Your task to perform on an android device: Clear the cart on bestbuy. Add rayovac triple a to the cart on bestbuy Image 0: 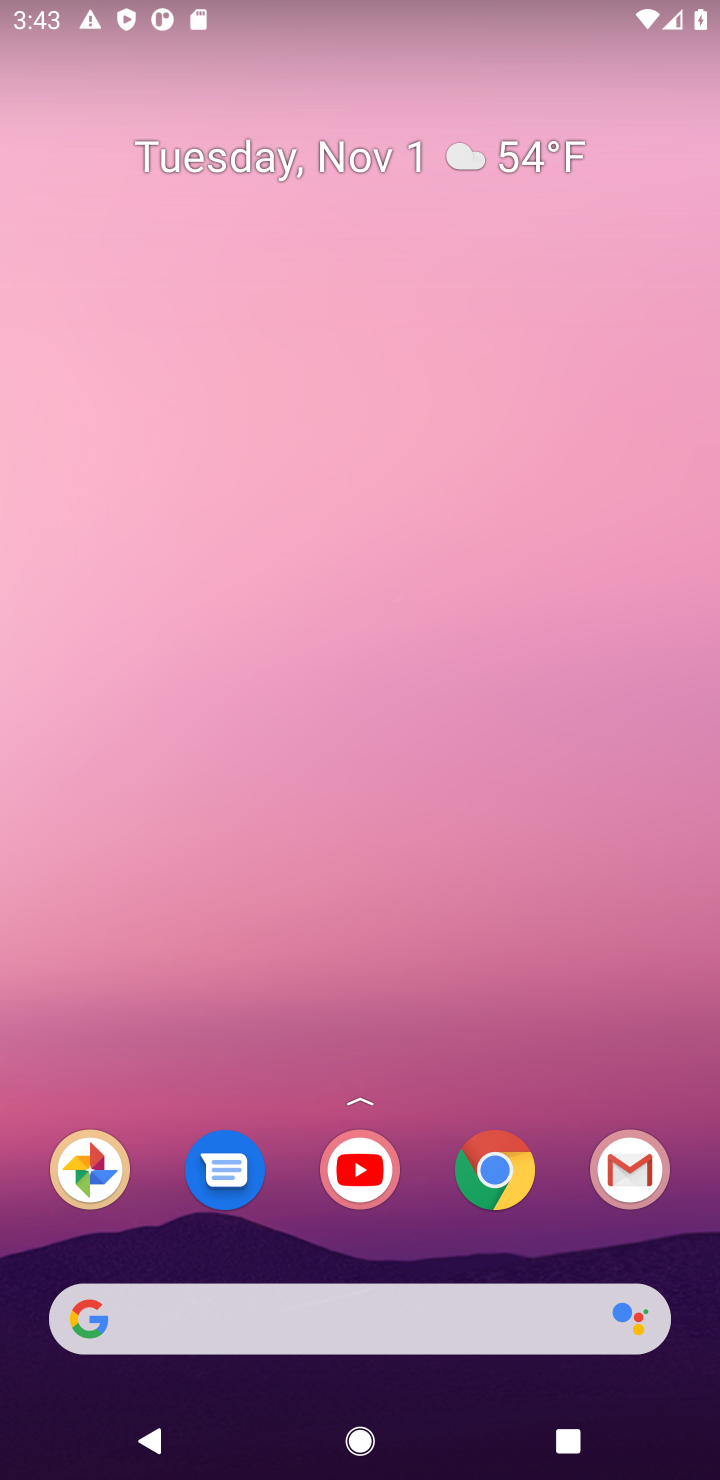
Step 0: drag from (428, 1338) to (430, 369)
Your task to perform on an android device: Clear the cart on bestbuy. Add rayovac triple a to the cart on bestbuy Image 1: 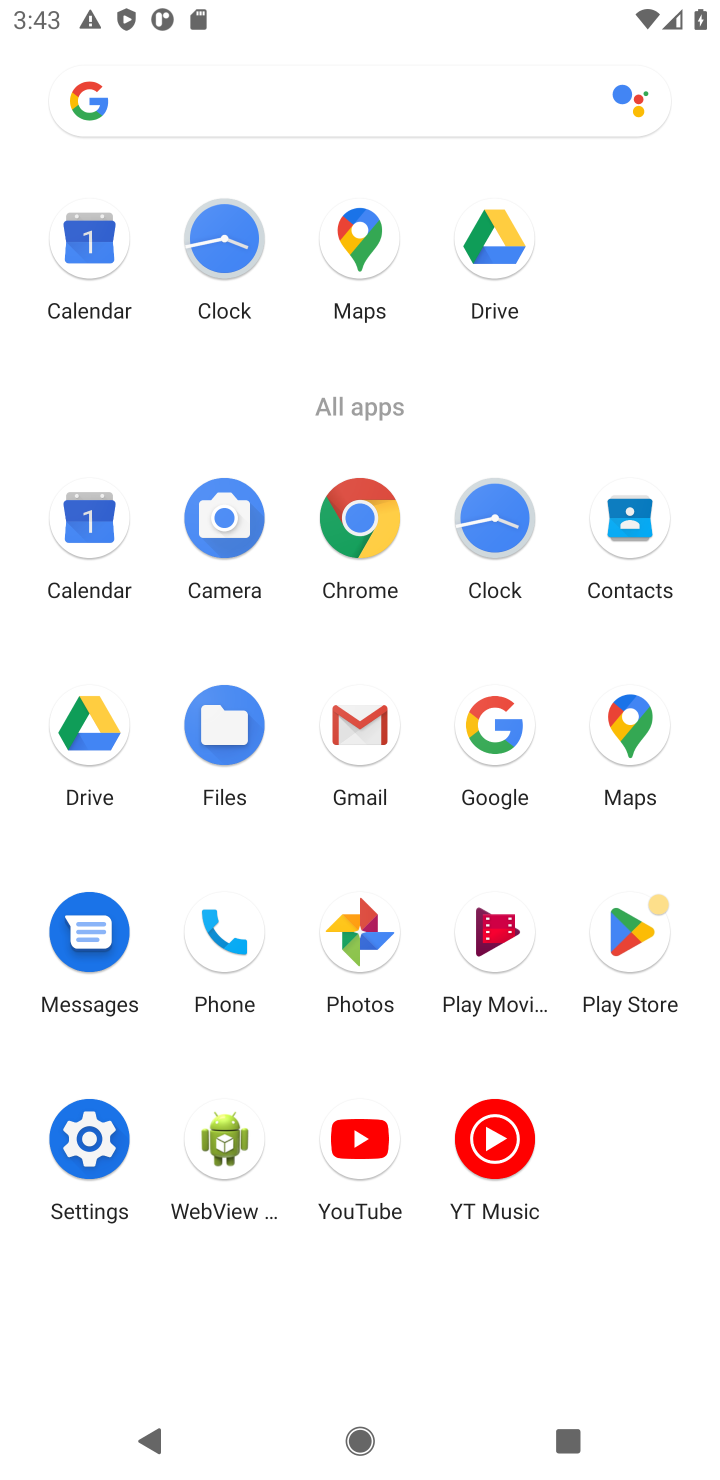
Step 1: click (358, 515)
Your task to perform on an android device: Clear the cart on bestbuy. Add rayovac triple a to the cart on bestbuy Image 2: 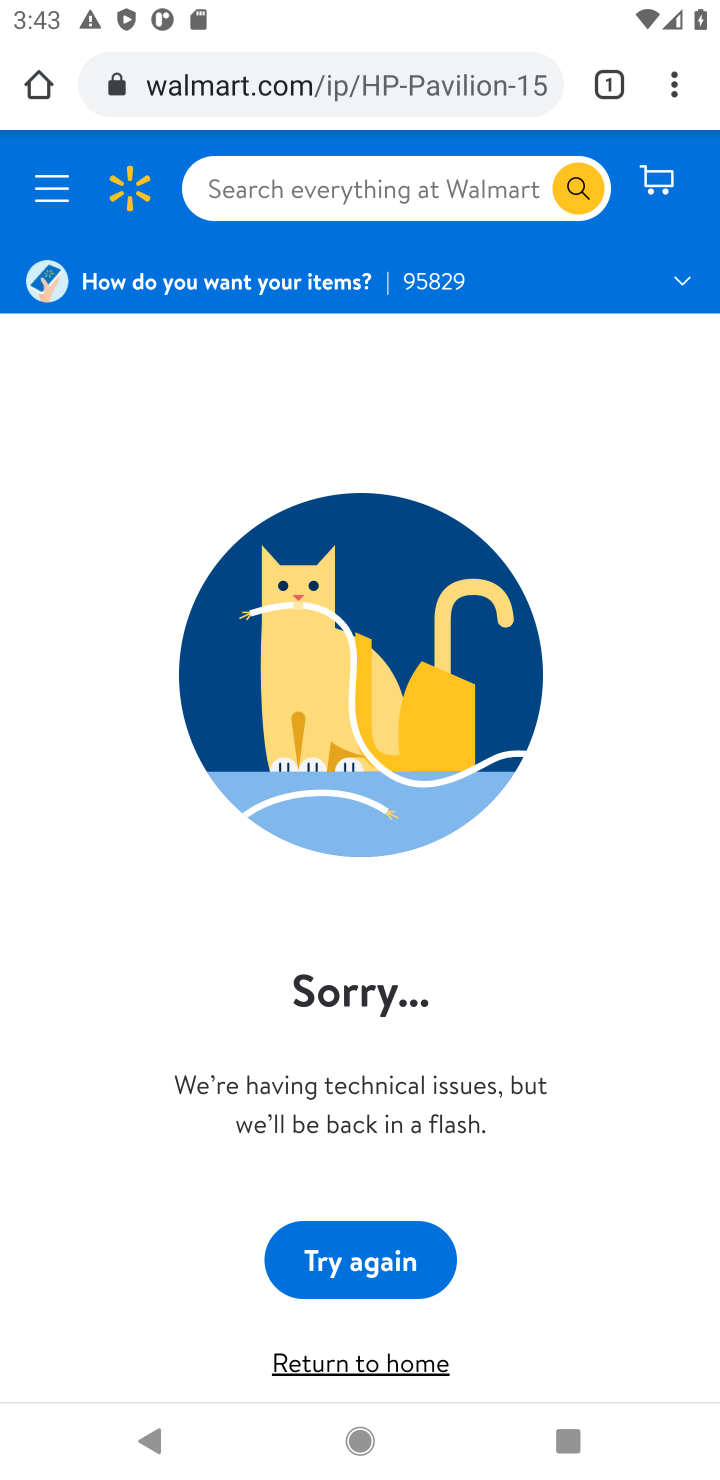
Step 2: click (364, 90)
Your task to perform on an android device: Clear the cart on bestbuy. Add rayovac triple a to the cart on bestbuy Image 3: 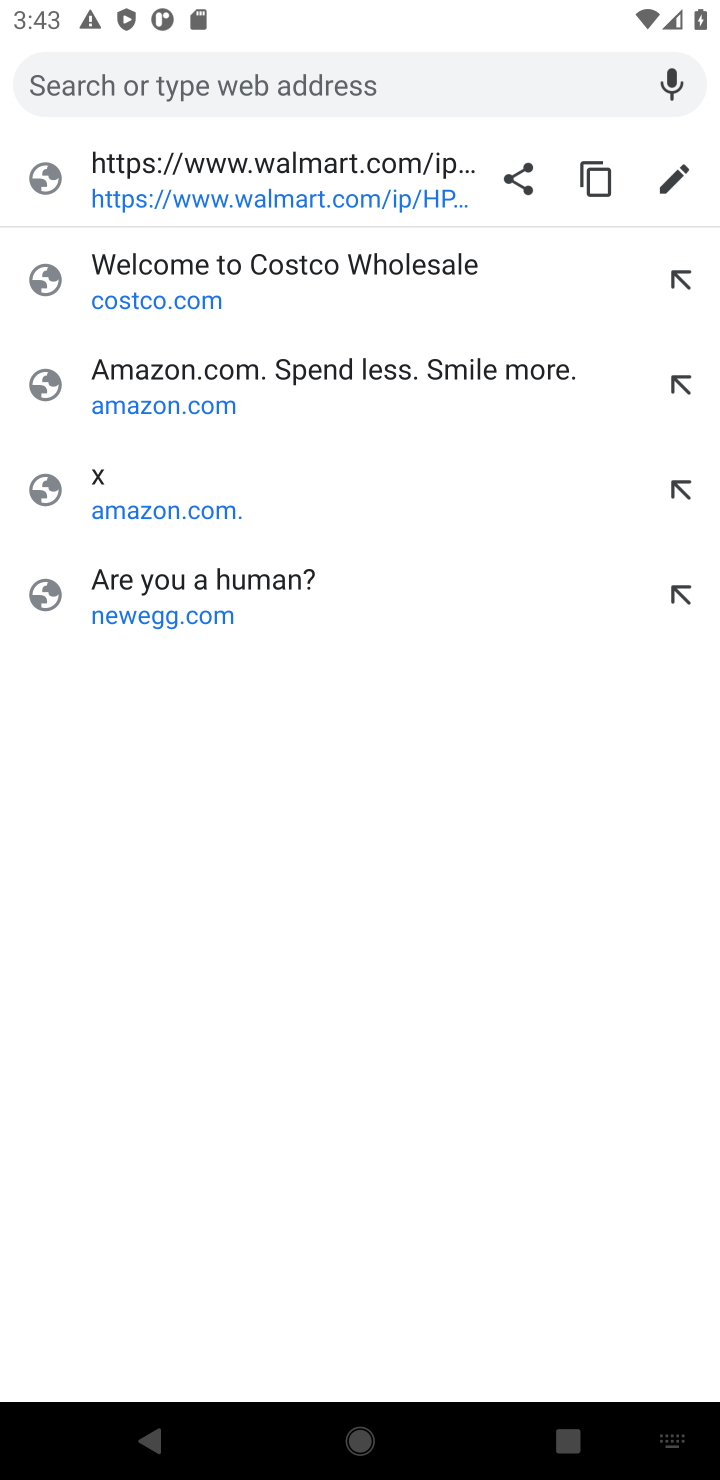
Step 3: type "bestbuy"
Your task to perform on an android device: Clear the cart on bestbuy. Add rayovac triple a to the cart on bestbuy Image 4: 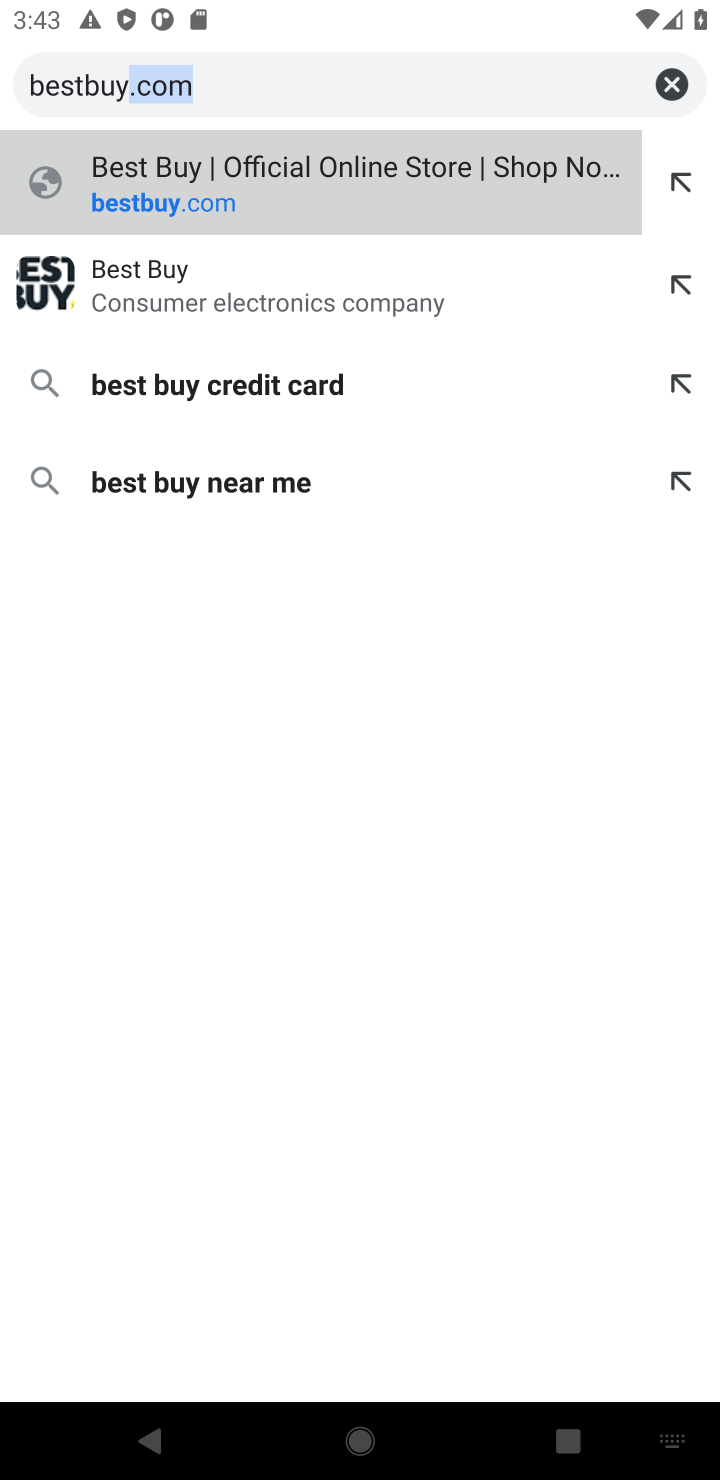
Step 4: click (124, 193)
Your task to perform on an android device: Clear the cart on bestbuy. Add rayovac triple a to the cart on bestbuy Image 5: 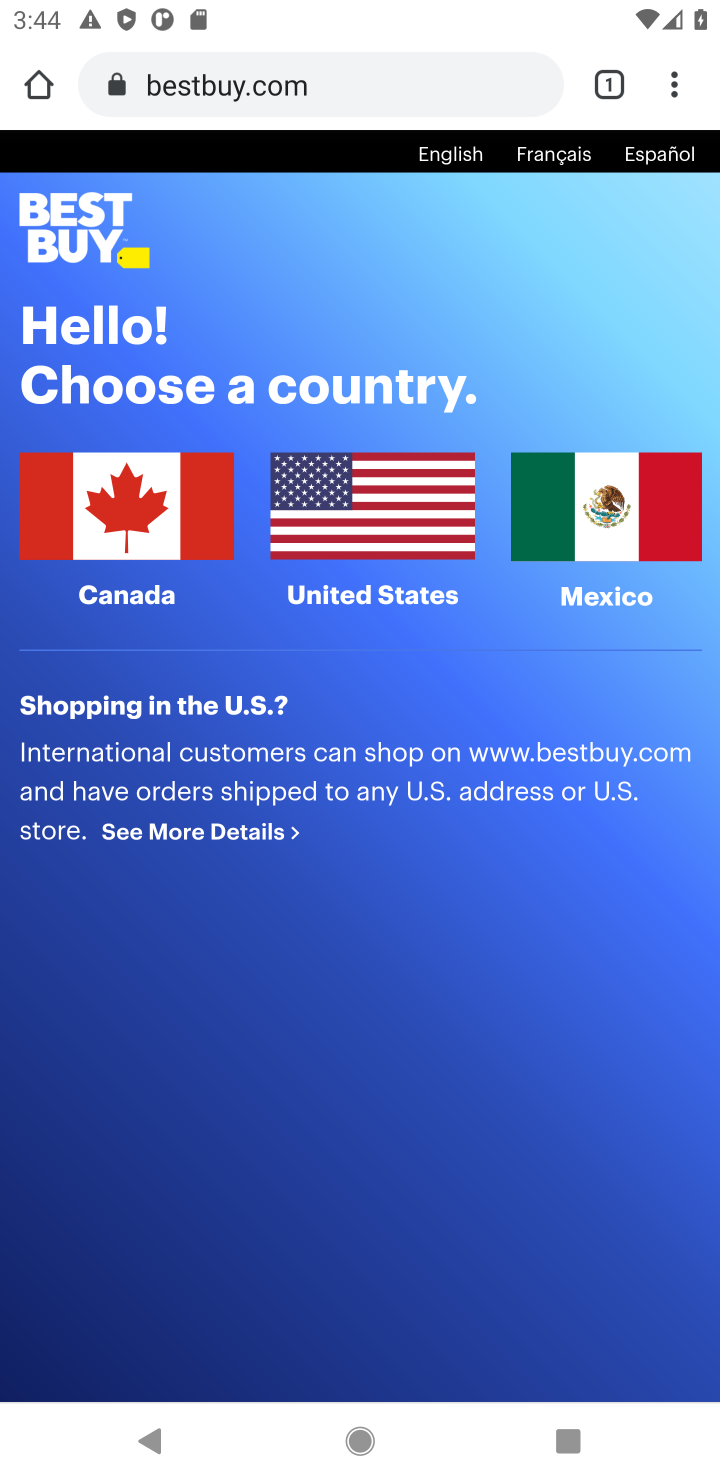
Step 5: click (400, 517)
Your task to perform on an android device: Clear the cart on bestbuy. Add rayovac triple a to the cart on bestbuy Image 6: 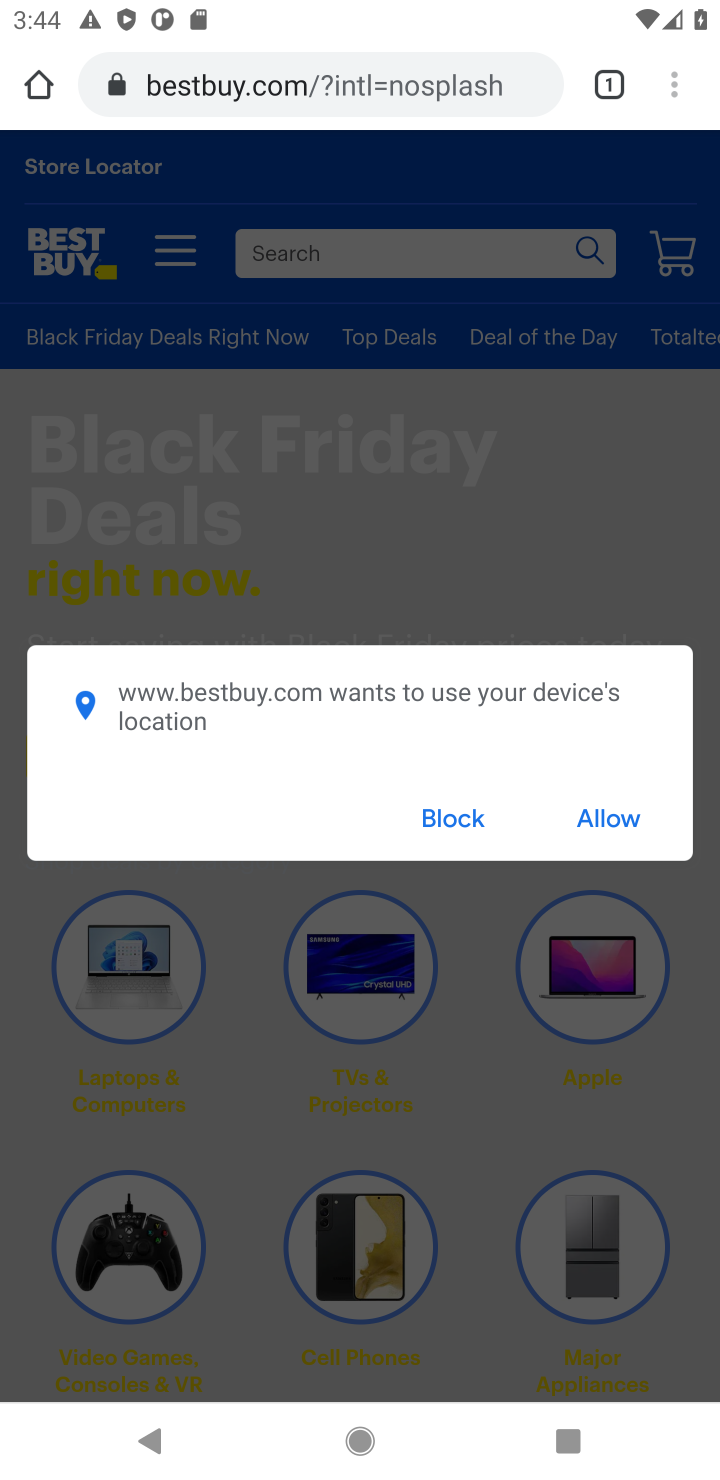
Step 6: click (612, 809)
Your task to perform on an android device: Clear the cart on bestbuy. Add rayovac triple a to the cart on bestbuy Image 7: 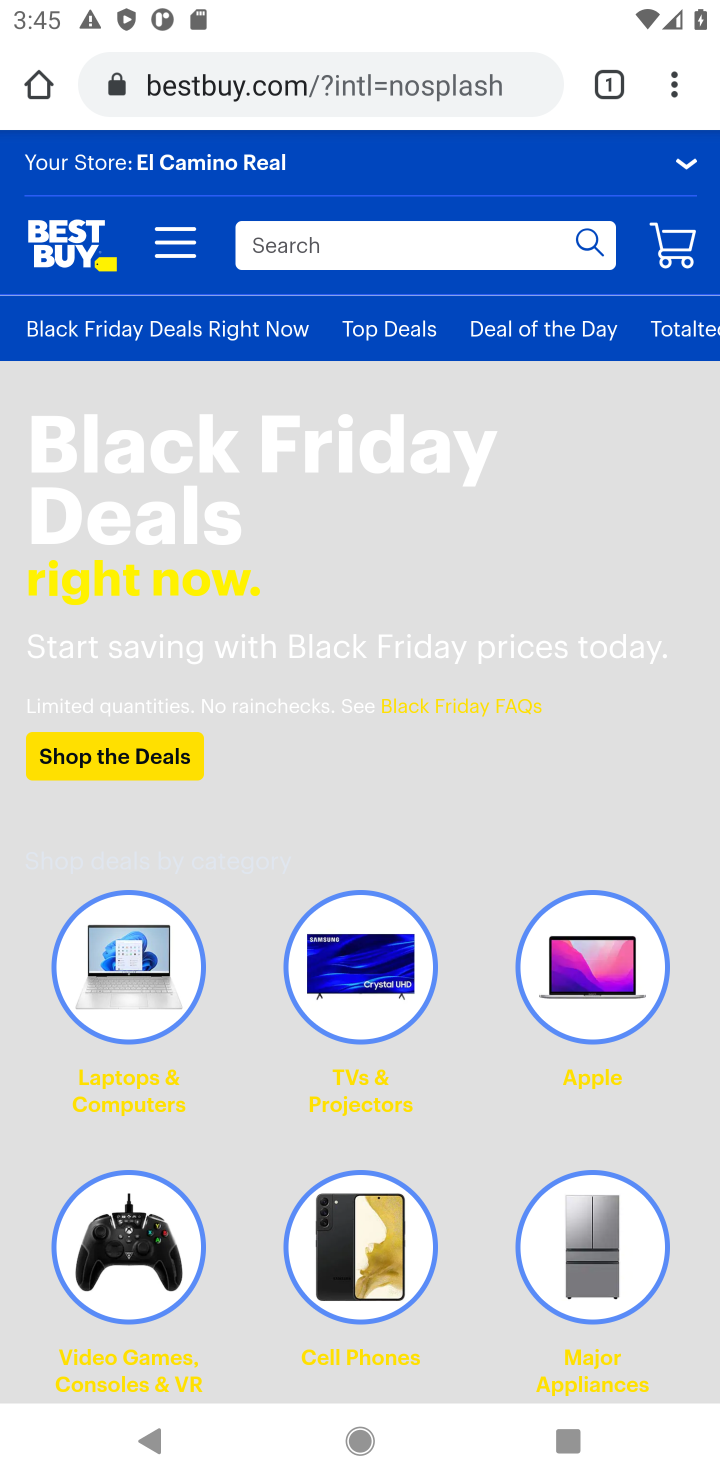
Step 7: click (678, 249)
Your task to perform on an android device: Clear the cart on bestbuy. Add rayovac triple a to the cart on bestbuy Image 8: 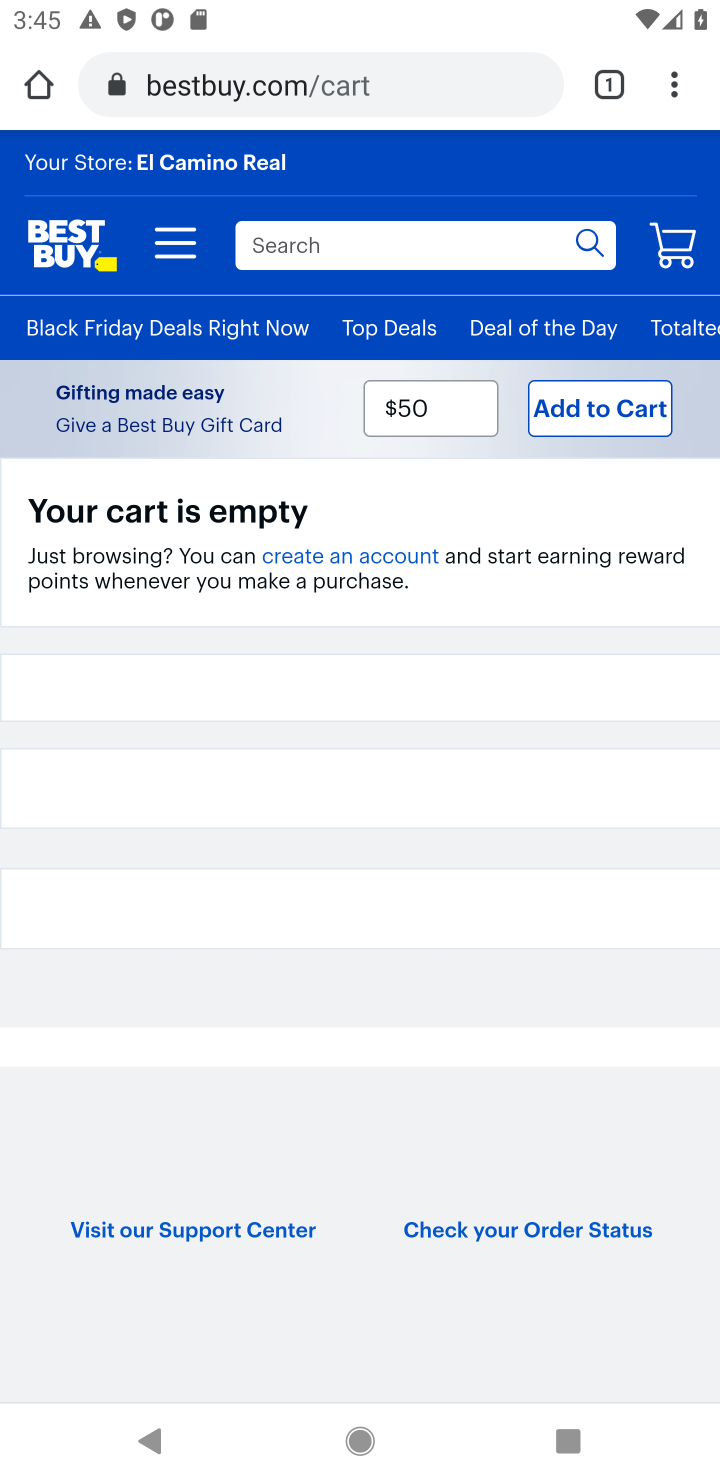
Step 8: task complete